Your task to perform on an android device: Open notification settings Image 0: 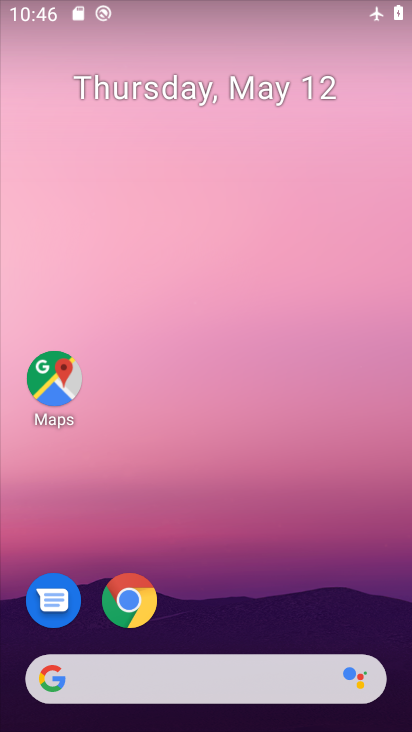
Step 0: drag from (228, 467) to (85, 120)
Your task to perform on an android device: Open notification settings Image 1: 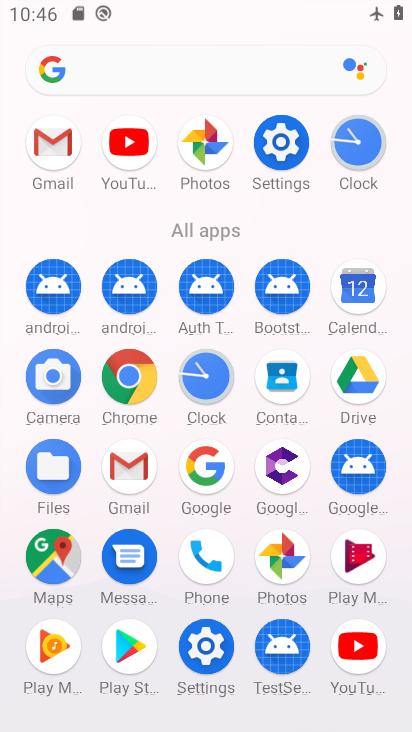
Step 1: click (284, 138)
Your task to perform on an android device: Open notification settings Image 2: 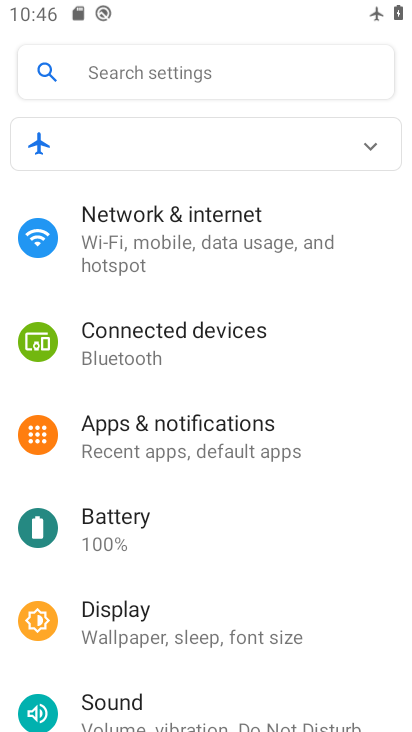
Step 2: click (221, 435)
Your task to perform on an android device: Open notification settings Image 3: 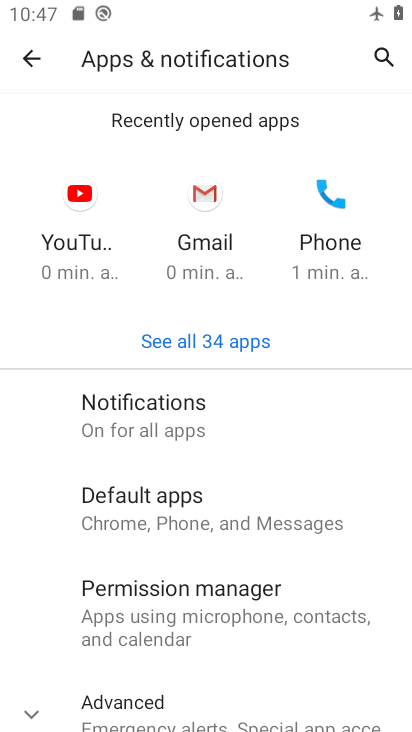
Step 3: click (162, 427)
Your task to perform on an android device: Open notification settings Image 4: 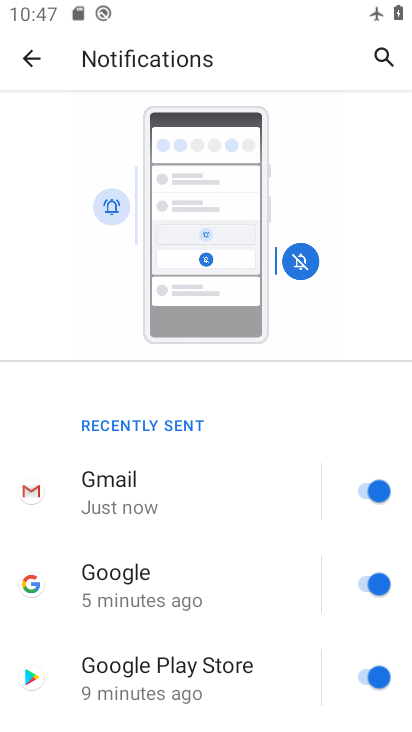
Step 4: task complete